Your task to perform on an android device: toggle translation in the chrome app Image 0: 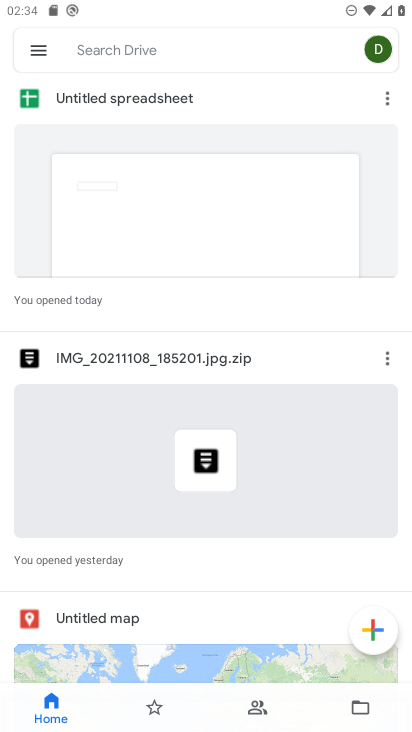
Step 0: press home button
Your task to perform on an android device: toggle translation in the chrome app Image 1: 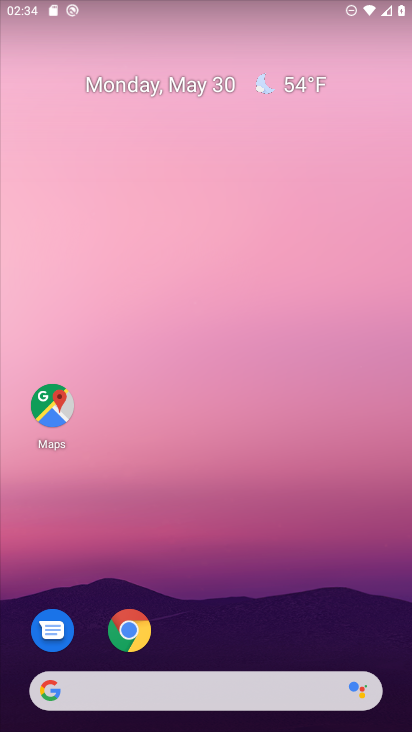
Step 1: click (135, 640)
Your task to perform on an android device: toggle translation in the chrome app Image 2: 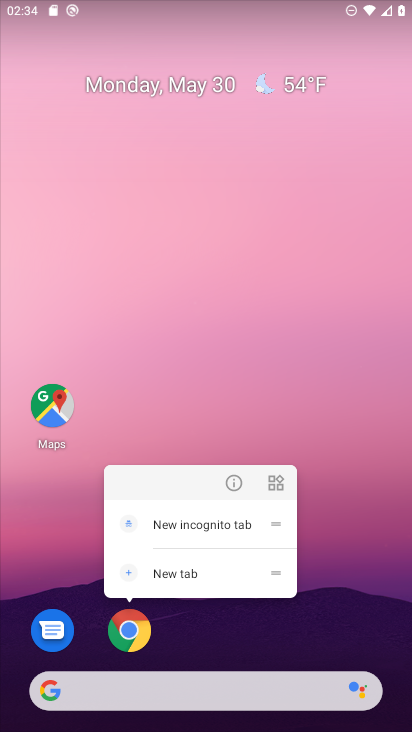
Step 2: click (135, 627)
Your task to perform on an android device: toggle translation in the chrome app Image 3: 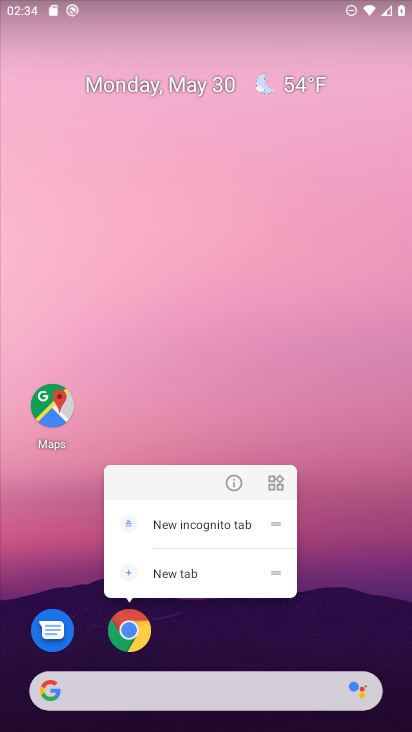
Step 3: click (124, 639)
Your task to perform on an android device: toggle translation in the chrome app Image 4: 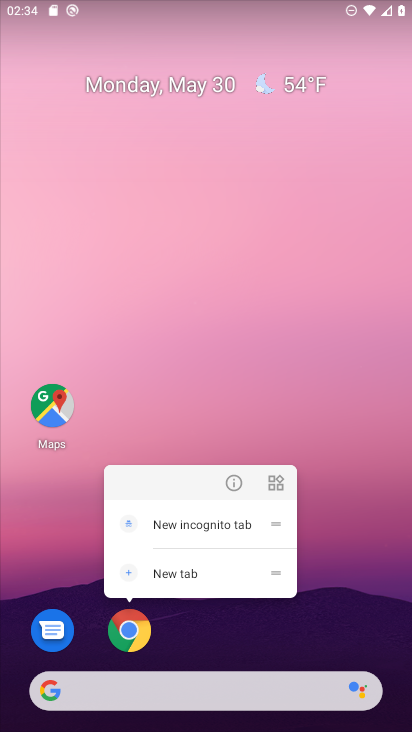
Step 4: click (119, 634)
Your task to perform on an android device: toggle translation in the chrome app Image 5: 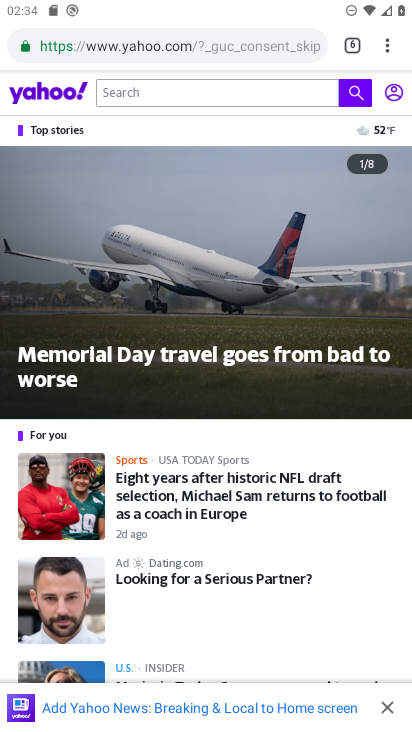
Step 5: drag from (384, 43) to (277, 551)
Your task to perform on an android device: toggle translation in the chrome app Image 6: 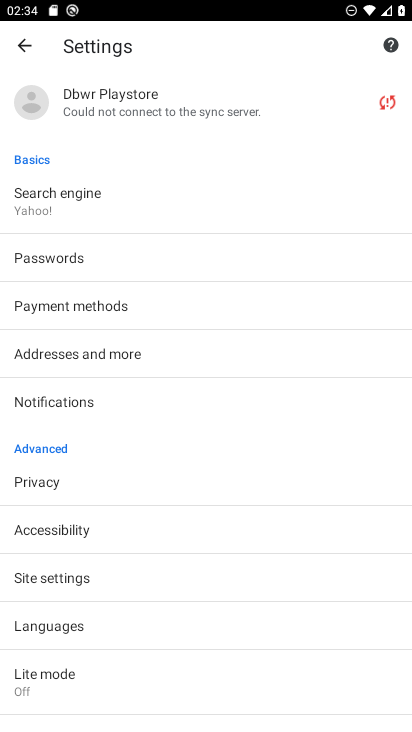
Step 6: click (37, 628)
Your task to perform on an android device: toggle translation in the chrome app Image 7: 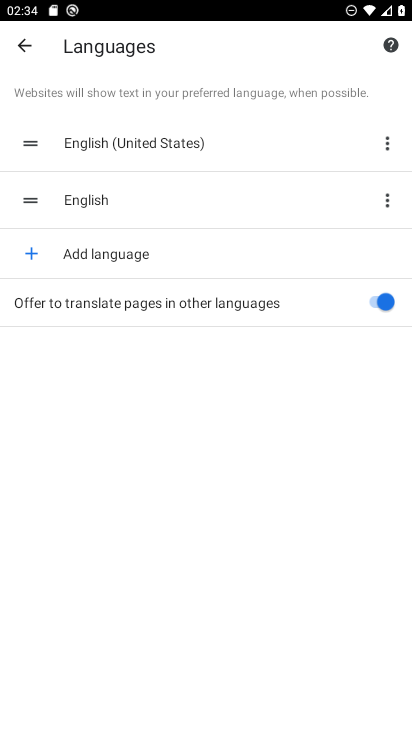
Step 7: click (376, 302)
Your task to perform on an android device: toggle translation in the chrome app Image 8: 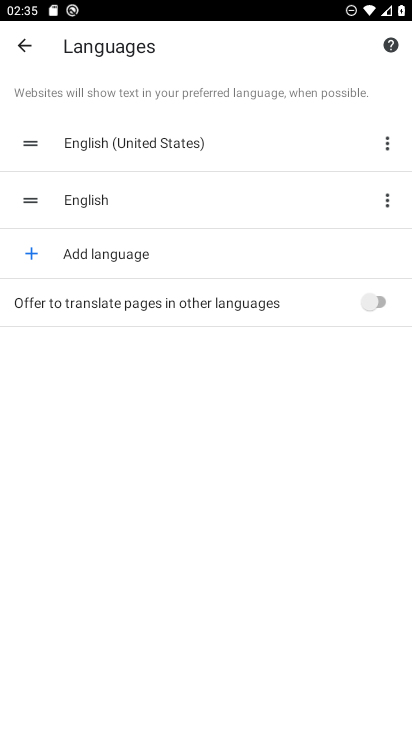
Step 8: task complete